Your task to perform on an android device: check google app version Image 0: 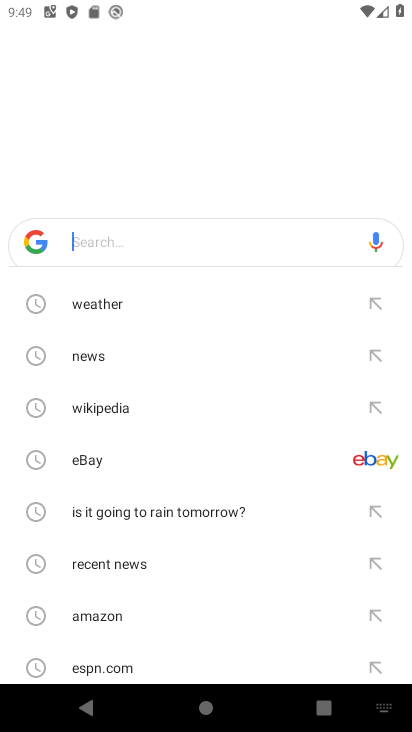
Step 0: press back button
Your task to perform on an android device: check google app version Image 1: 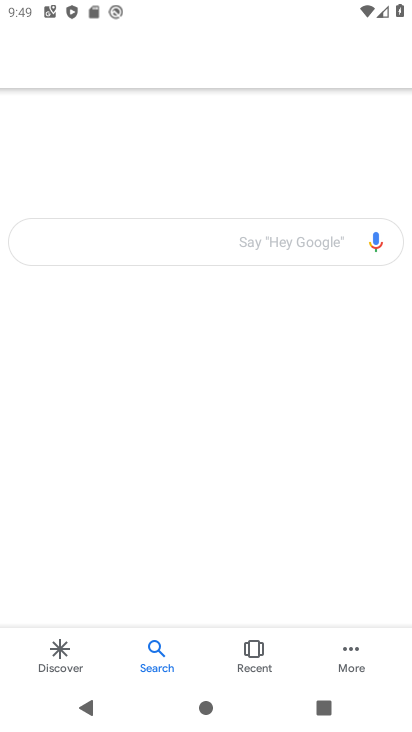
Step 1: press back button
Your task to perform on an android device: check google app version Image 2: 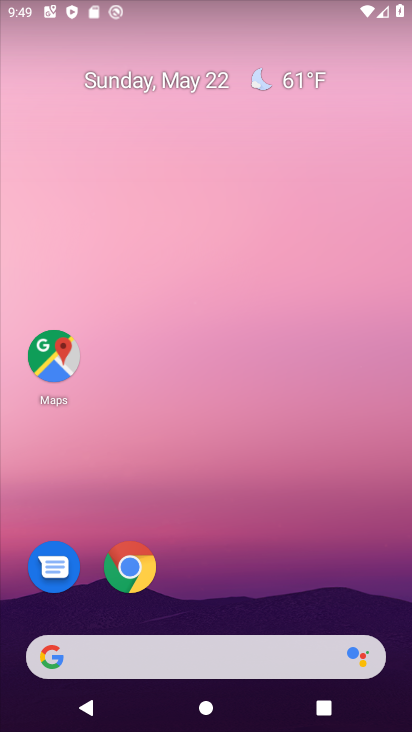
Step 2: drag from (223, 654) to (178, 103)
Your task to perform on an android device: check google app version Image 3: 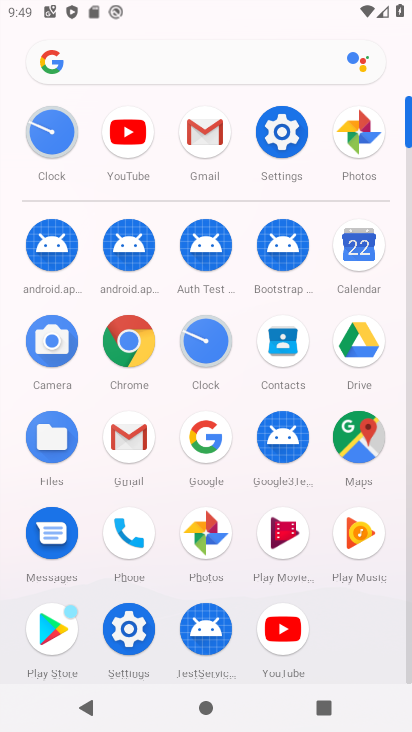
Step 3: click (214, 443)
Your task to perform on an android device: check google app version Image 4: 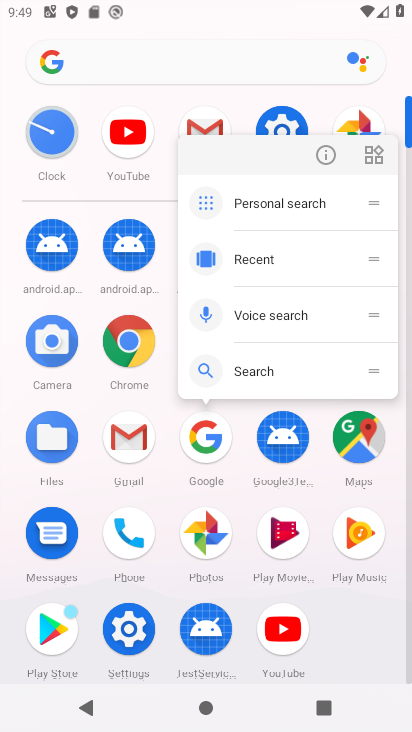
Step 4: click (329, 156)
Your task to perform on an android device: check google app version Image 5: 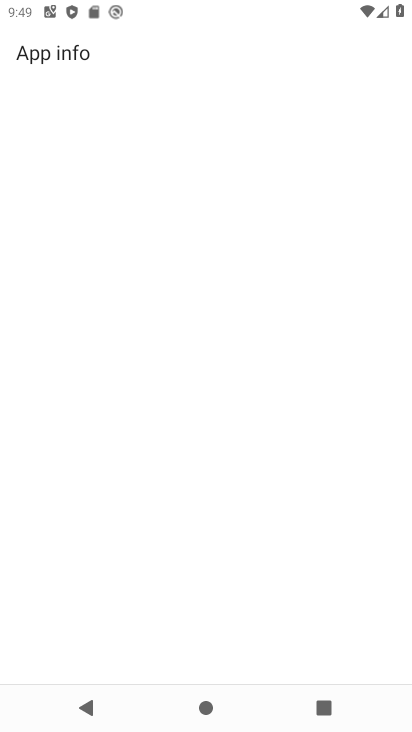
Step 5: drag from (293, 476) to (275, 172)
Your task to perform on an android device: check google app version Image 6: 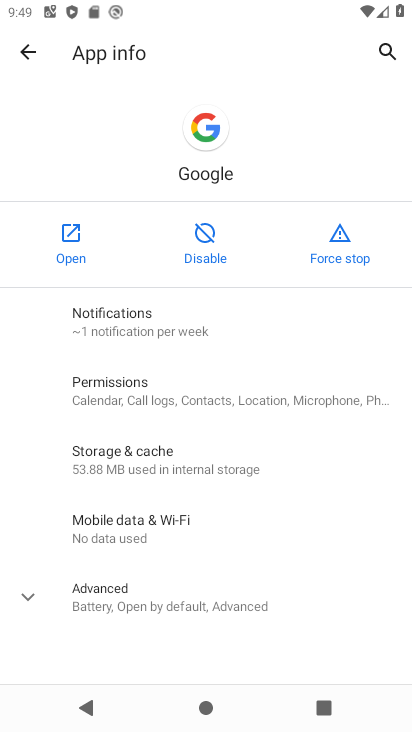
Step 6: click (163, 602)
Your task to perform on an android device: check google app version Image 7: 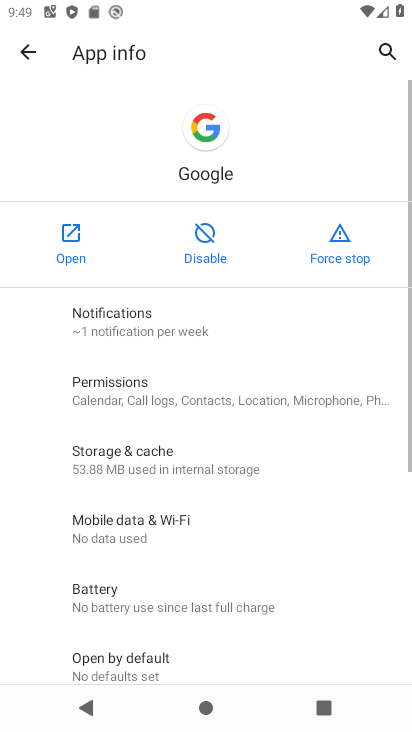
Step 7: task complete